Your task to perform on an android device: Go to internet settings Image 0: 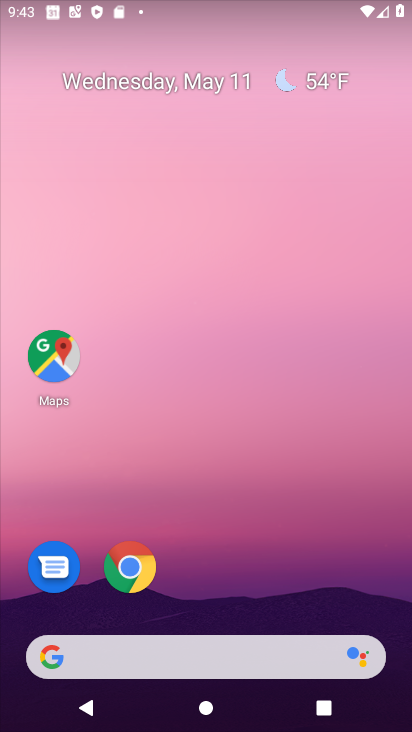
Step 0: drag from (218, 598) to (311, 6)
Your task to perform on an android device: Go to internet settings Image 1: 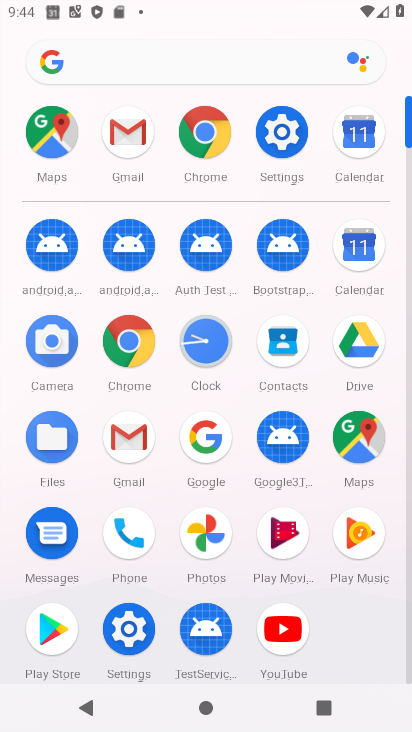
Step 1: click (134, 634)
Your task to perform on an android device: Go to internet settings Image 2: 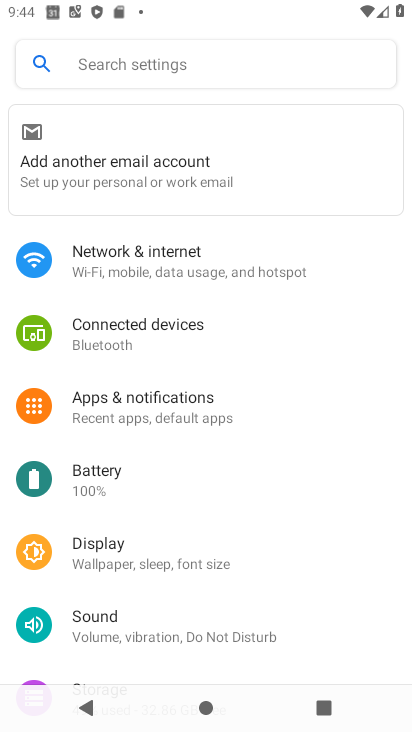
Step 2: click (217, 277)
Your task to perform on an android device: Go to internet settings Image 3: 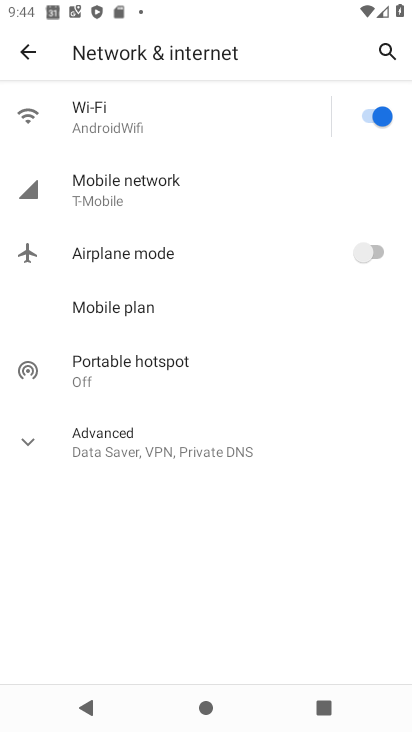
Step 3: task complete